Your task to perform on an android device: install app "Messages" Image 0: 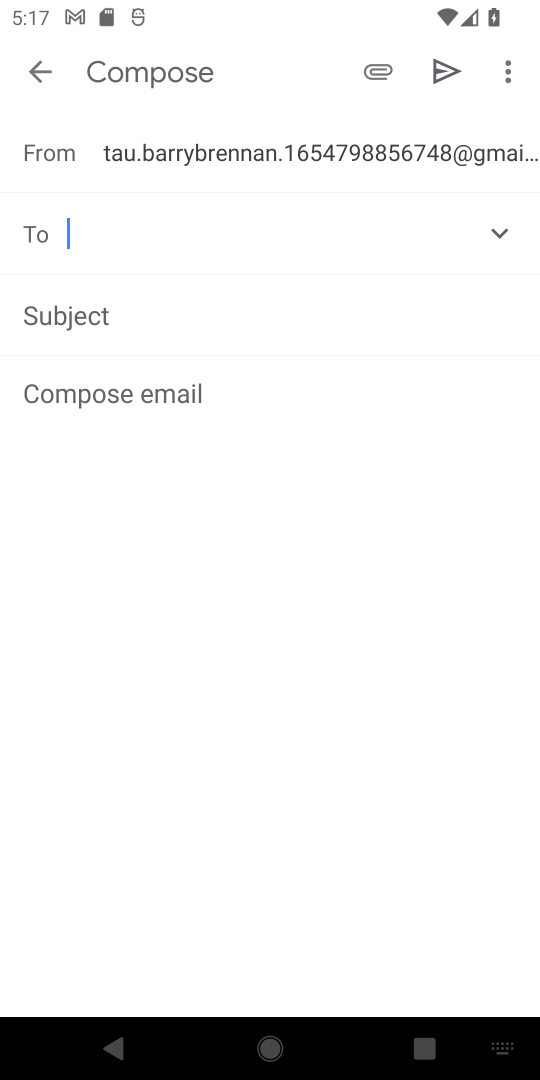
Step 0: click (34, 63)
Your task to perform on an android device: install app "Messages" Image 1: 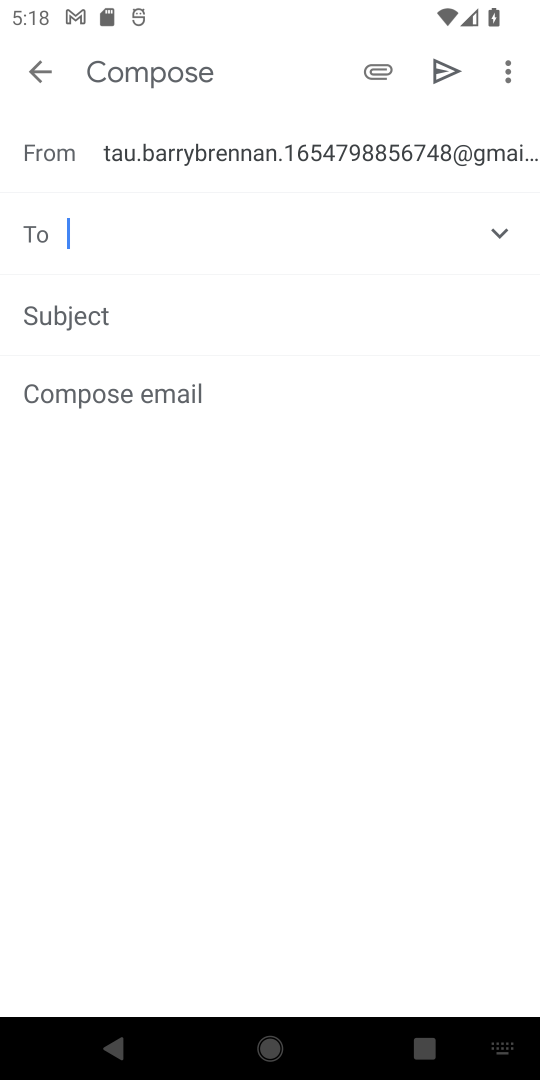
Step 1: click (34, 63)
Your task to perform on an android device: install app "Messages" Image 2: 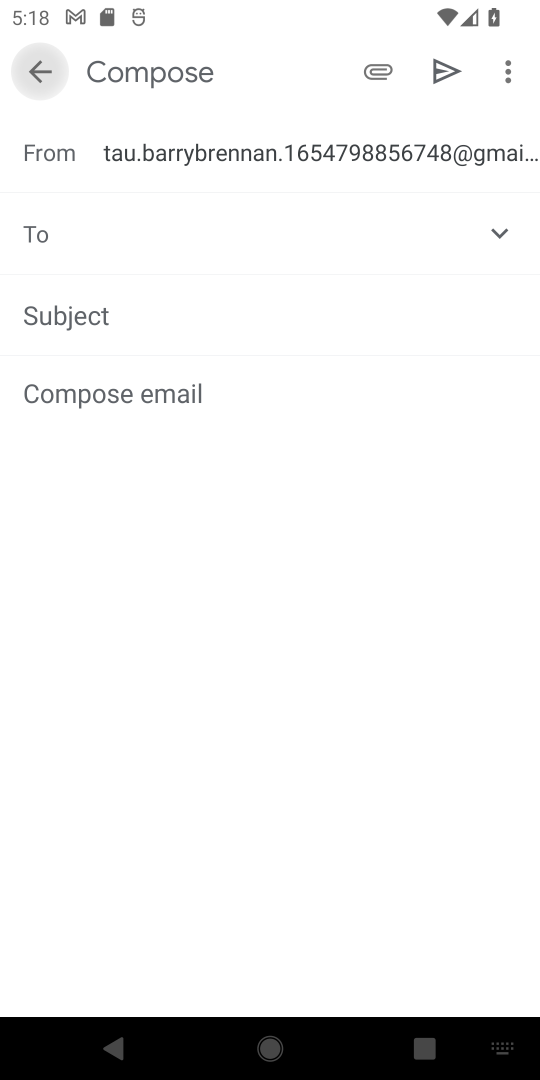
Step 2: click (34, 63)
Your task to perform on an android device: install app "Messages" Image 3: 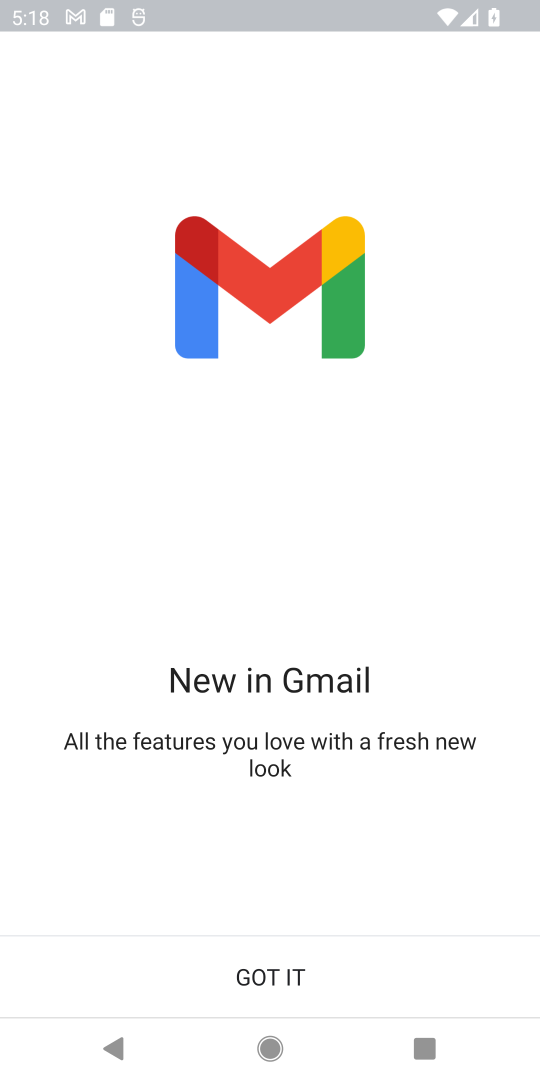
Step 3: press back button
Your task to perform on an android device: install app "Messages" Image 4: 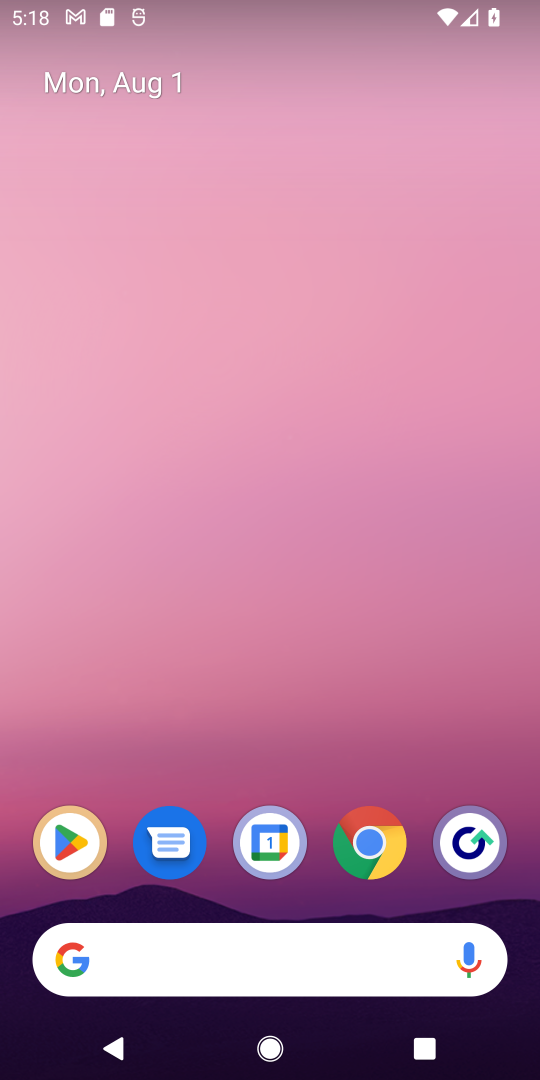
Step 4: drag from (244, 787) to (354, 293)
Your task to perform on an android device: install app "Messages" Image 5: 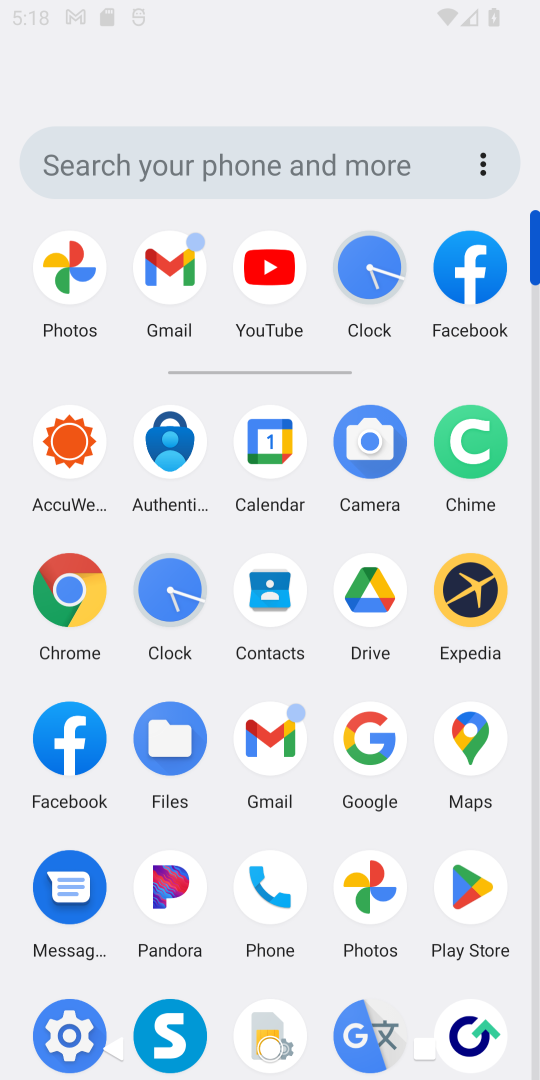
Step 5: drag from (367, 536) to (367, 246)
Your task to perform on an android device: install app "Messages" Image 6: 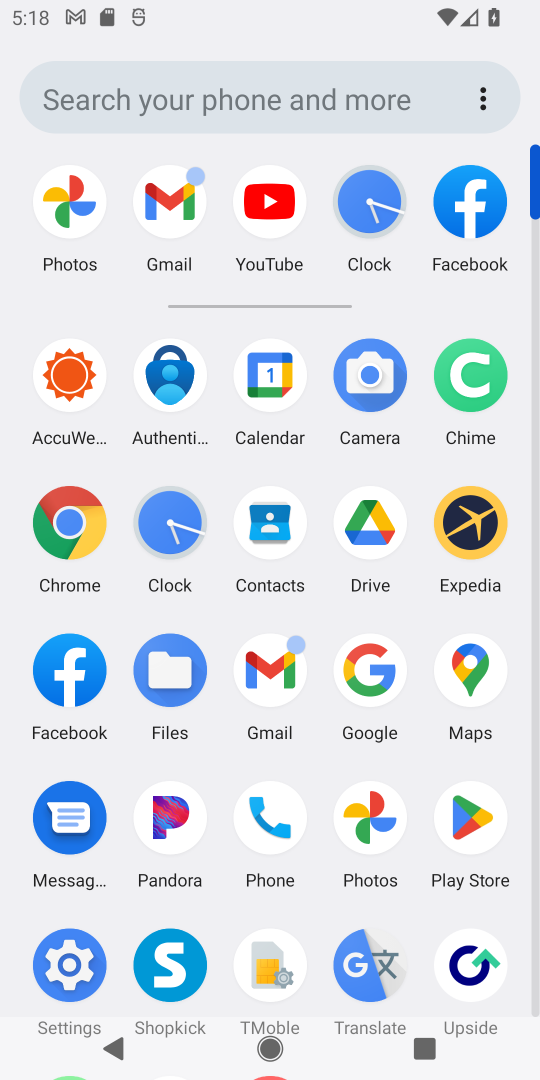
Step 6: click (480, 806)
Your task to perform on an android device: install app "Messages" Image 7: 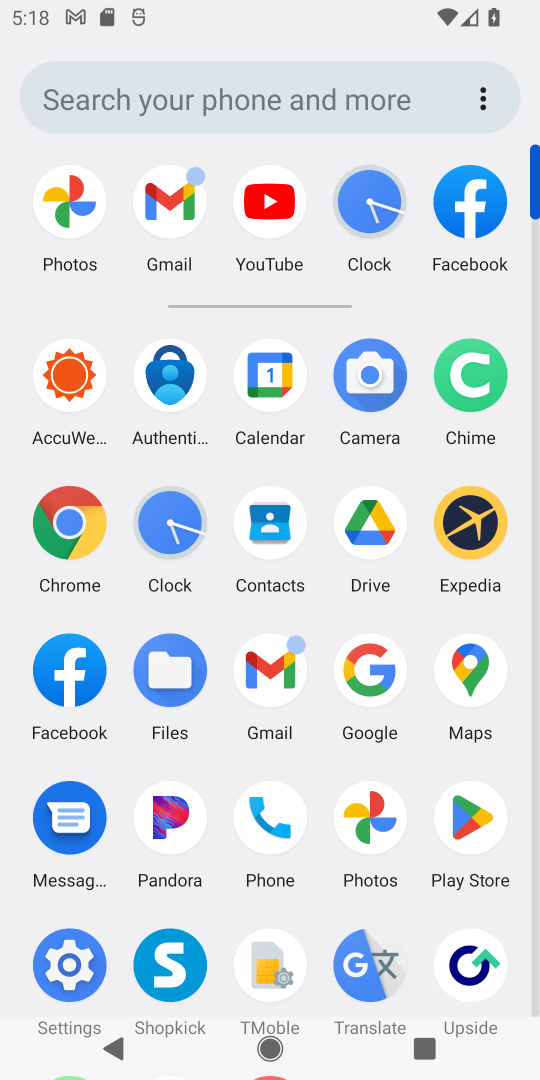
Step 7: click (480, 806)
Your task to perform on an android device: install app "Messages" Image 8: 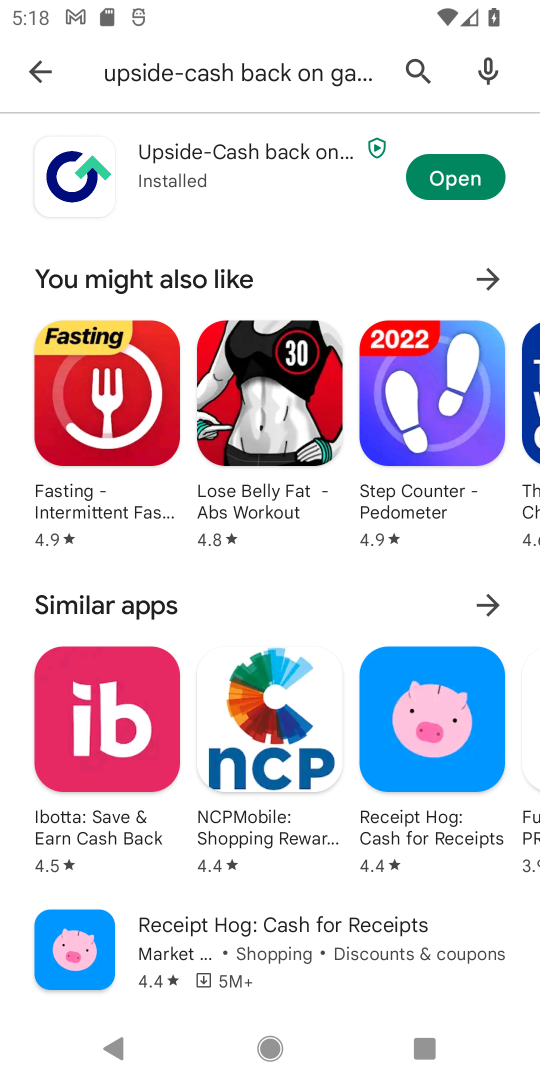
Step 8: click (38, 73)
Your task to perform on an android device: install app "Messages" Image 9: 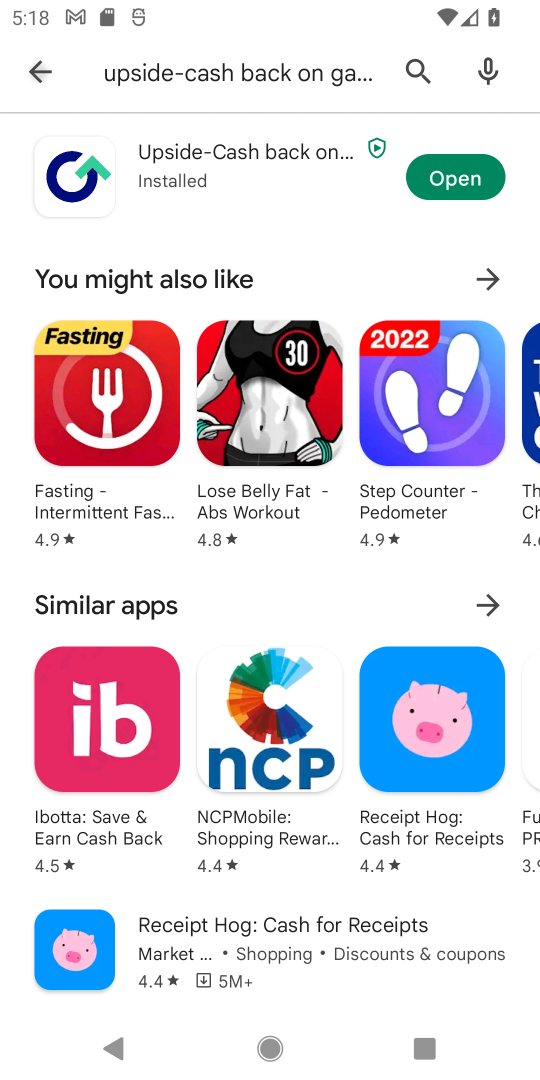
Step 9: click (38, 73)
Your task to perform on an android device: install app "Messages" Image 10: 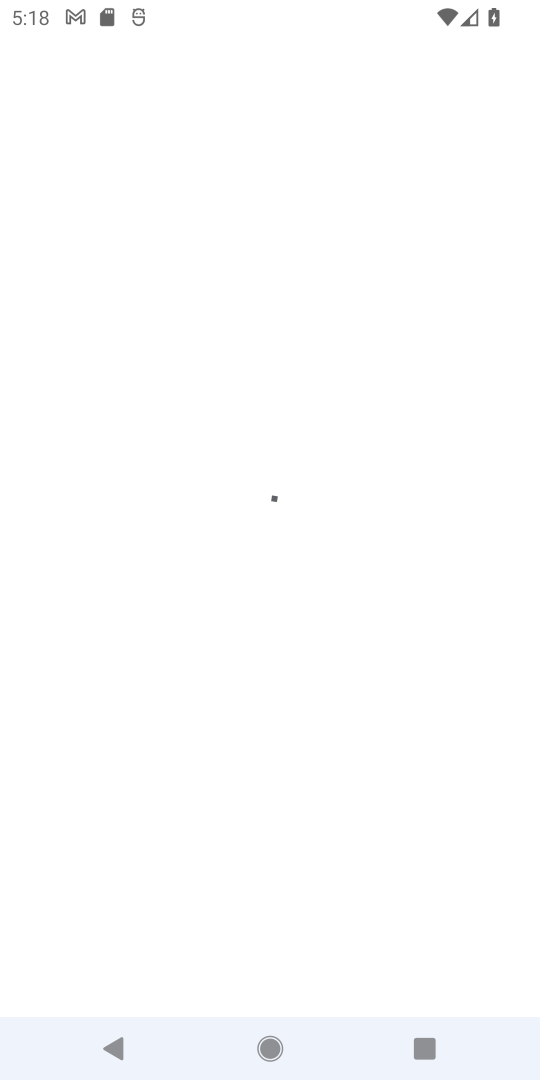
Step 10: click (39, 70)
Your task to perform on an android device: install app "Messages" Image 11: 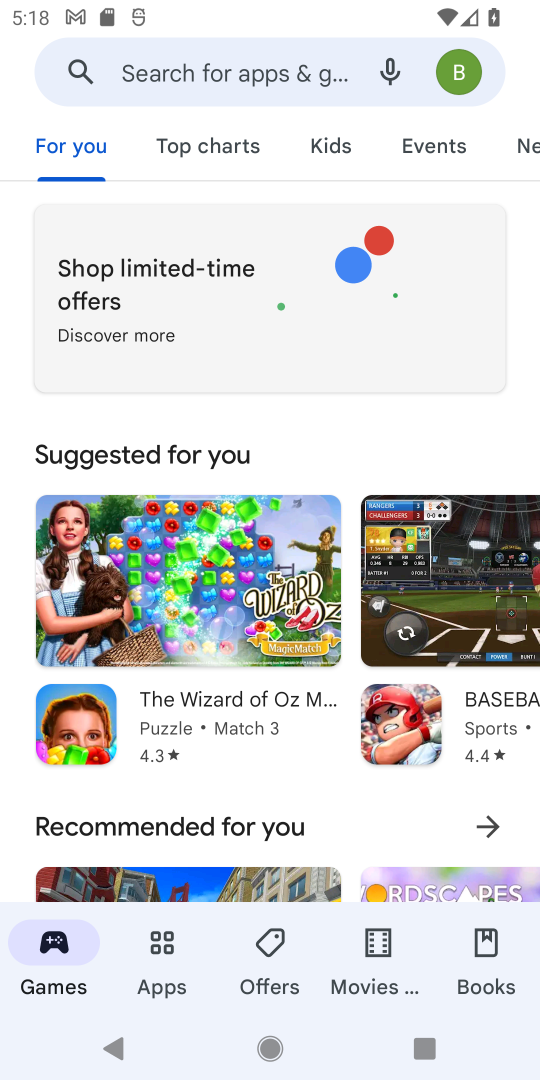
Step 11: click (109, 76)
Your task to perform on an android device: install app "Messages" Image 12: 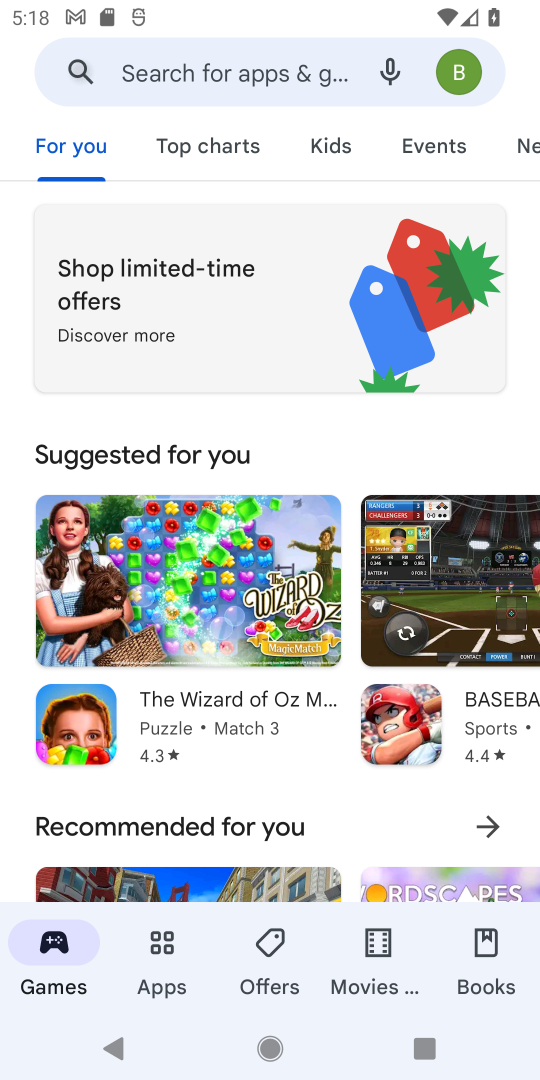
Step 12: click (131, 74)
Your task to perform on an android device: install app "Messages" Image 13: 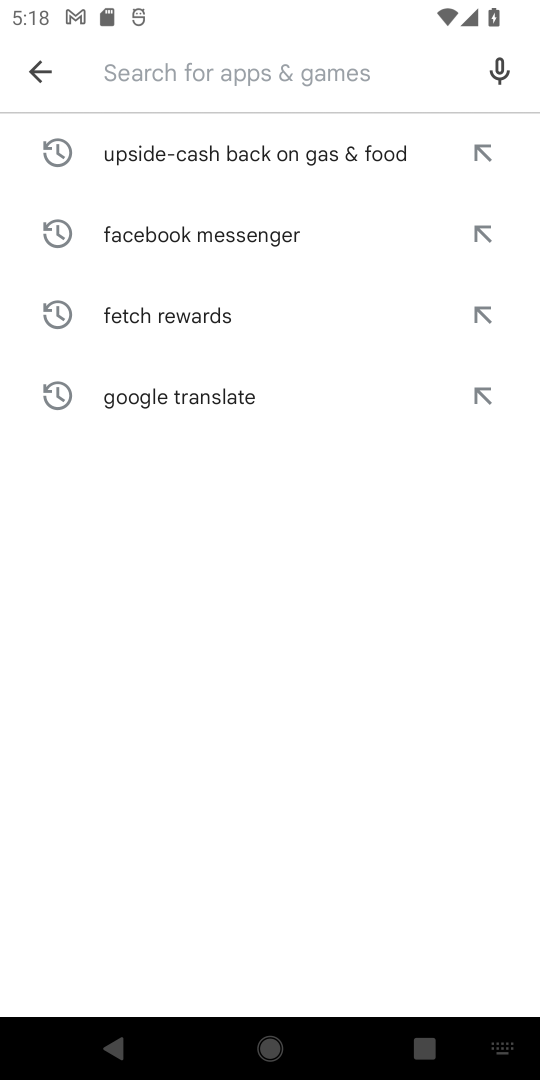
Step 13: type "Messages"
Your task to perform on an android device: install app "Messages" Image 14: 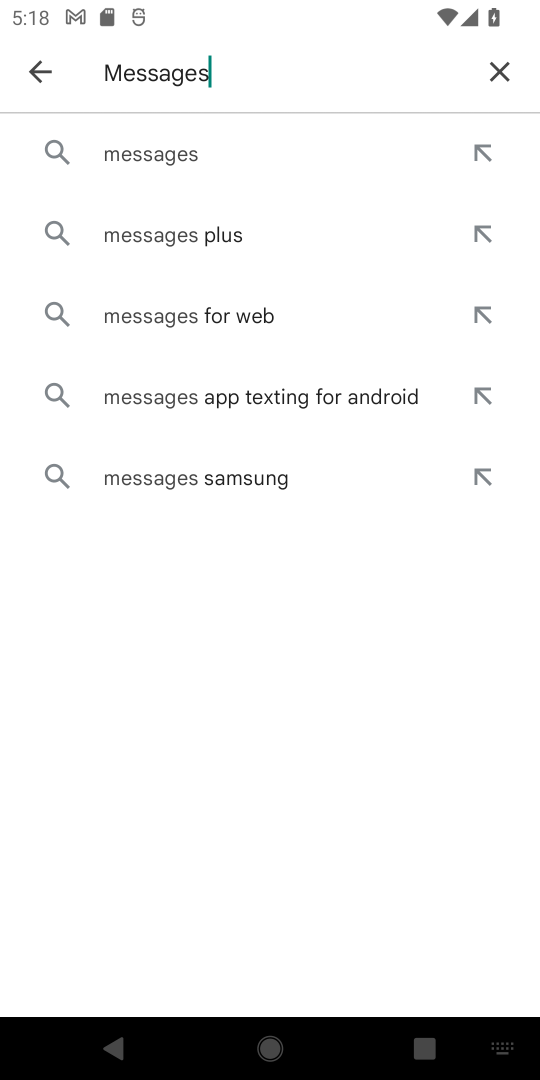
Step 14: click (124, 139)
Your task to perform on an android device: install app "Messages" Image 15: 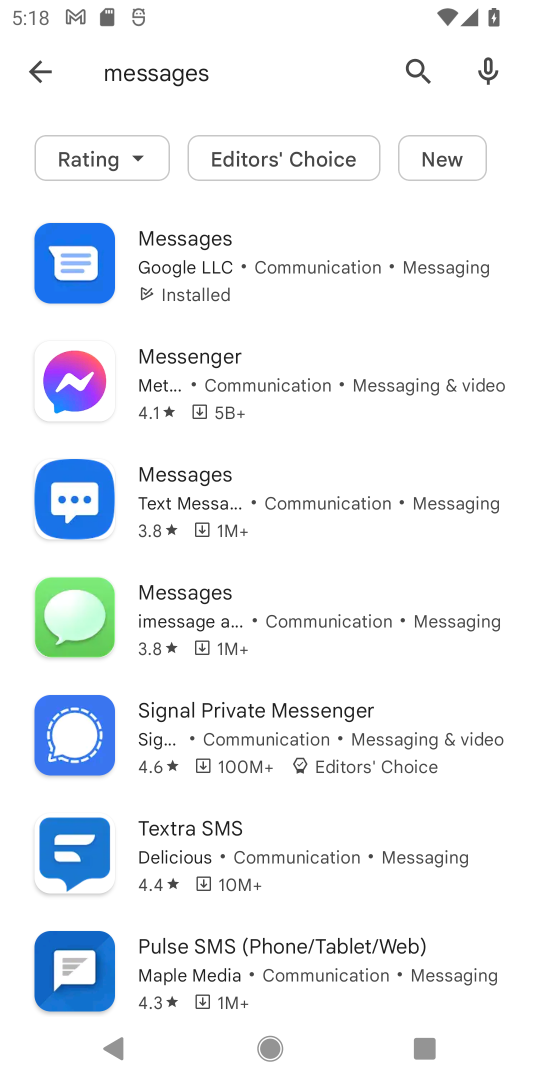
Step 15: task complete